Your task to perform on an android device: Go to wifi settings Image 0: 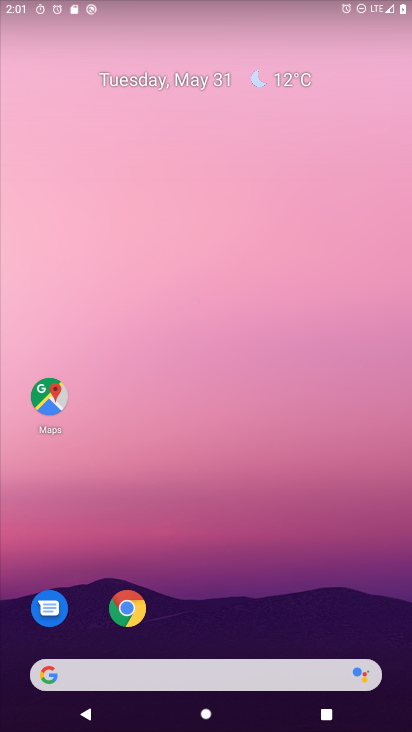
Step 0: drag from (254, 644) to (218, 42)
Your task to perform on an android device: Go to wifi settings Image 1: 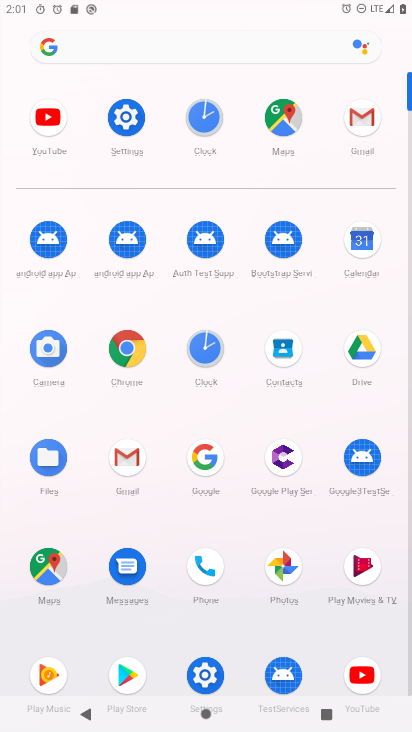
Step 1: click (118, 125)
Your task to perform on an android device: Go to wifi settings Image 2: 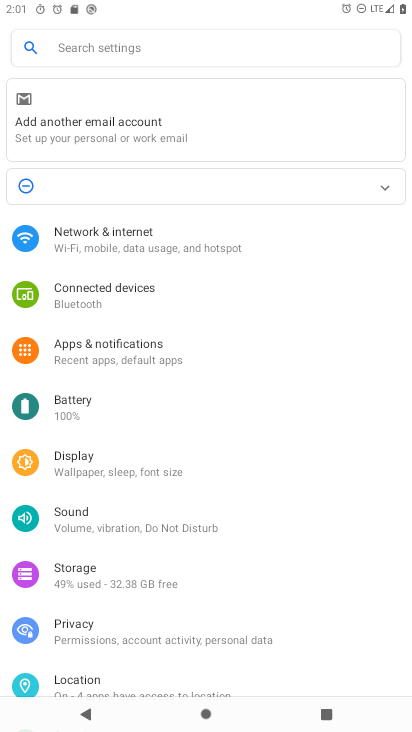
Step 2: click (67, 240)
Your task to perform on an android device: Go to wifi settings Image 3: 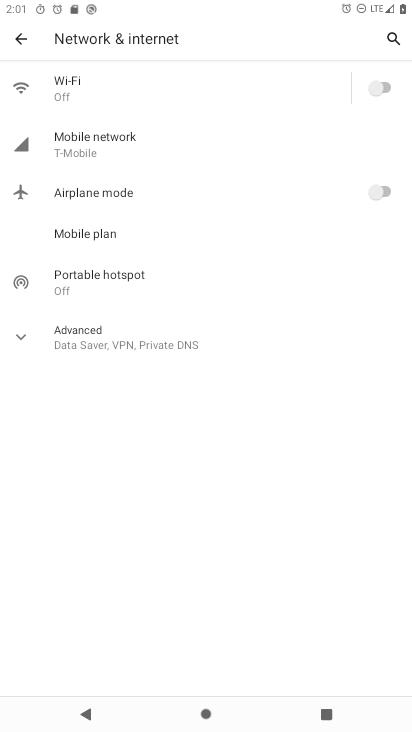
Step 3: click (26, 91)
Your task to perform on an android device: Go to wifi settings Image 4: 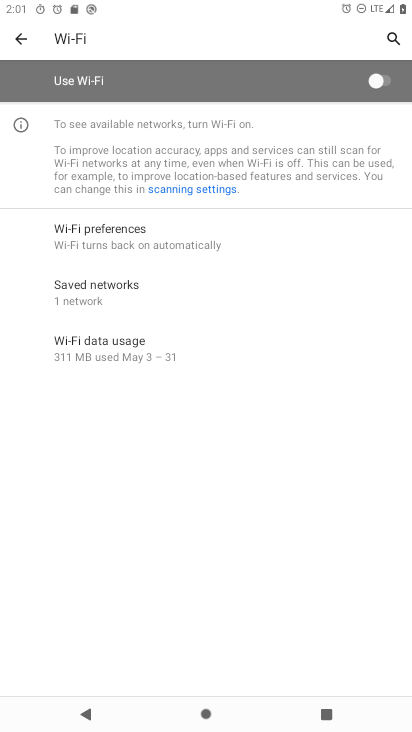
Step 4: task complete